Your task to perform on an android device: Turn on the flashlight Image 0: 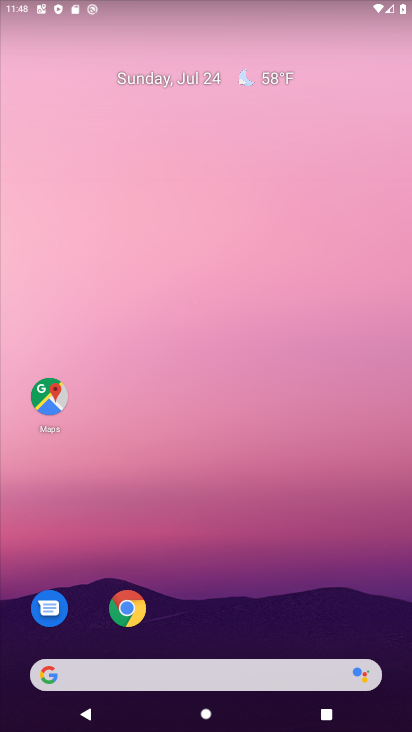
Step 0: drag from (144, 27) to (158, 447)
Your task to perform on an android device: Turn on the flashlight Image 1: 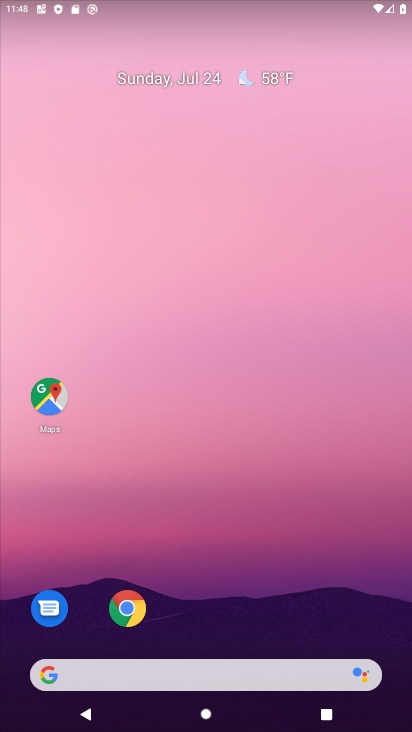
Step 1: task complete